Your task to perform on an android device: Toggle the flashlight Image 0: 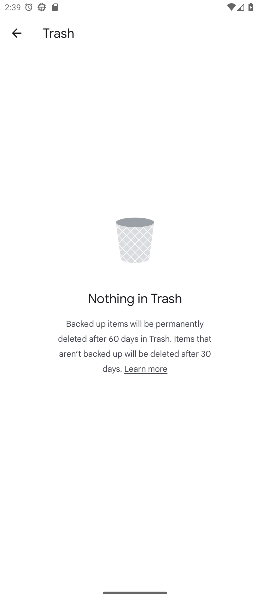
Step 0: press home button
Your task to perform on an android device: Toggle the flashlight Image 1: 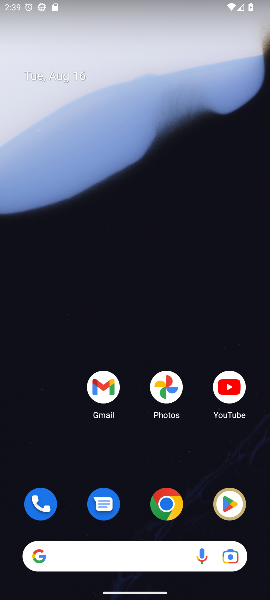
Step 1: drag from (130, 488) to (110, 71)
Your task to perform on an android device: Toggle the flashlight Image 2: 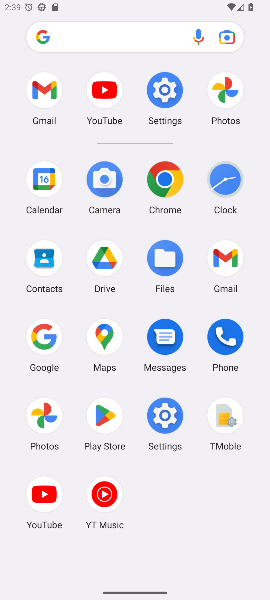
Step 2: click (164, 88)
Your task to perform on an android device: Toggle the flashlight Image 3: 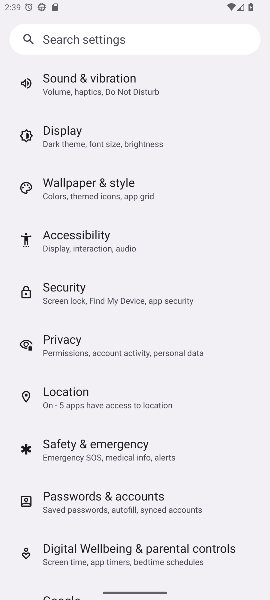
Step 3: click (61, 136)
Your task to perform on an android device: Toggle the flashlight Image 4: 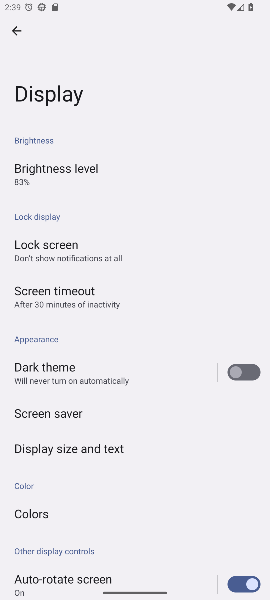
Step 4: task complete